Your task to perform on an android device: Open wifi settings Image 0: 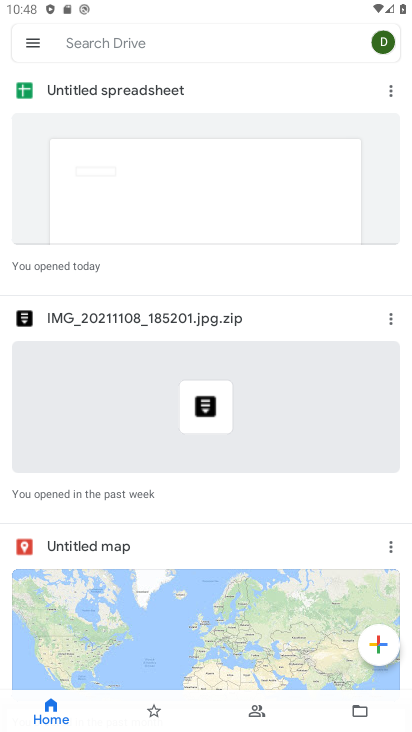
Step 0: press home button
Your task to perform on an android device: Open wifi settings Image 1: 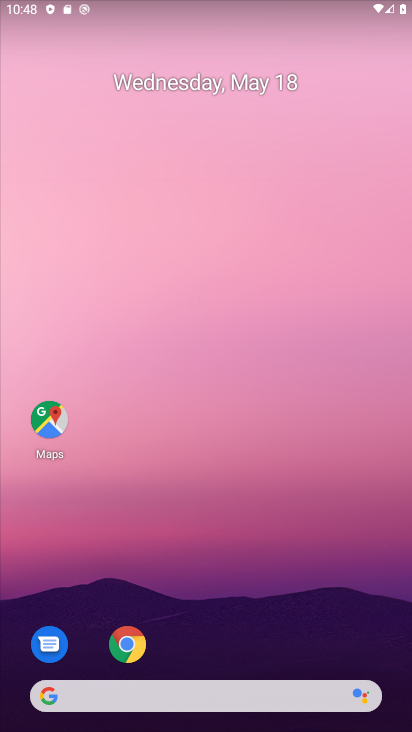
Step 1: drag from (187, 664) to (3, 139)
Your task to perform on an android device: Open wifi settings Image 2: 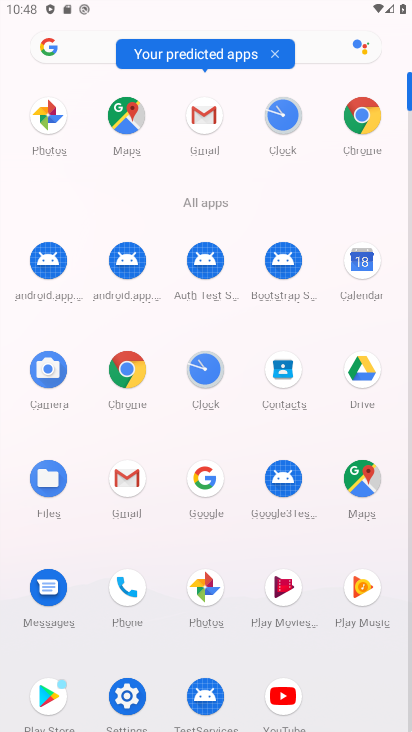
Step 2: click (132, 689)
Your task to perform on an android device: Open wifi settings Image 3: 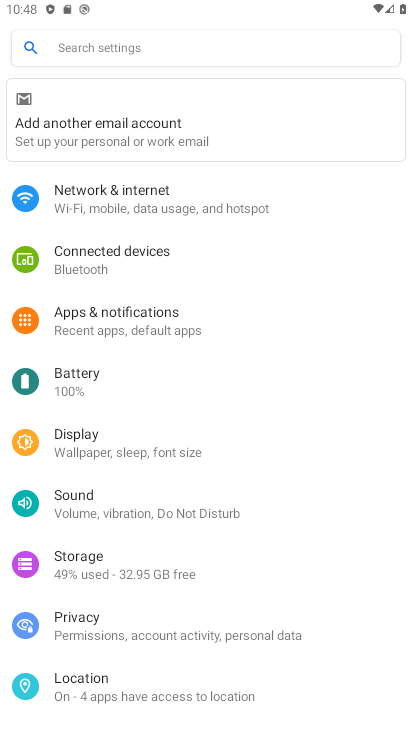
Step 3: click (178, 213)
Your task to perform on an android device: Open wifi settings Image 4: 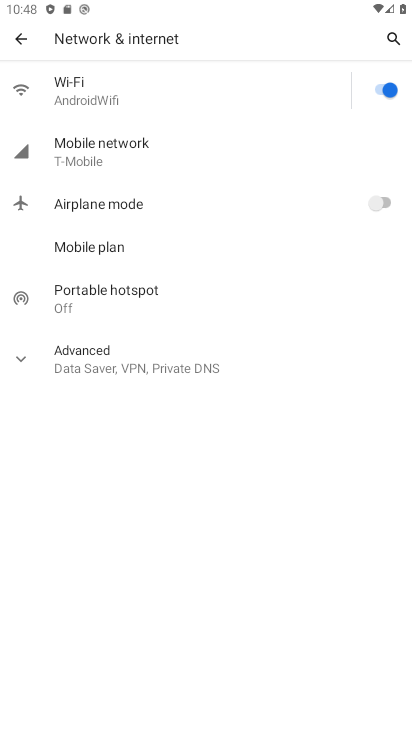
Step 4: press home button
Your task to perform on an android device: Open wifi settings Image 5: 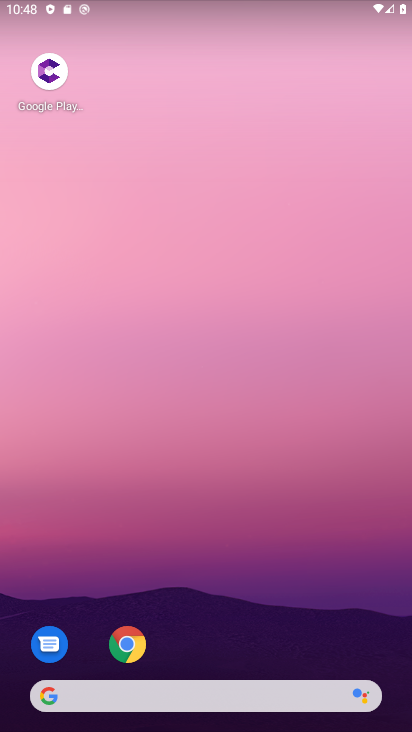
Step 5: drag from (182, 663) to (409, 207)
Your task to perform on an android device: Open wifi settings Image 6: 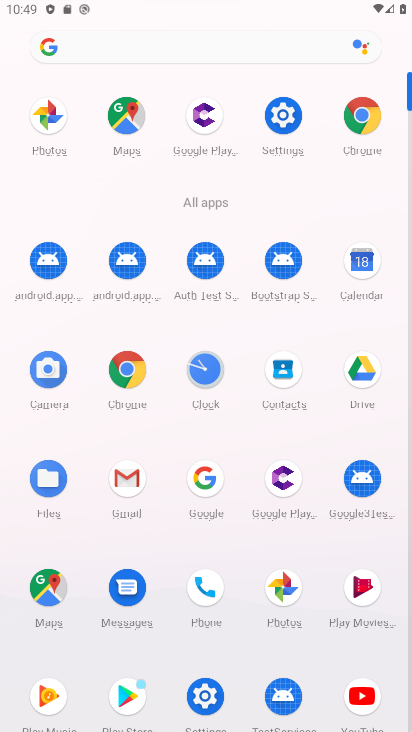
Step 6: click (295, 114)
Your task to perform on an android device: Open wifi settings Image 7: 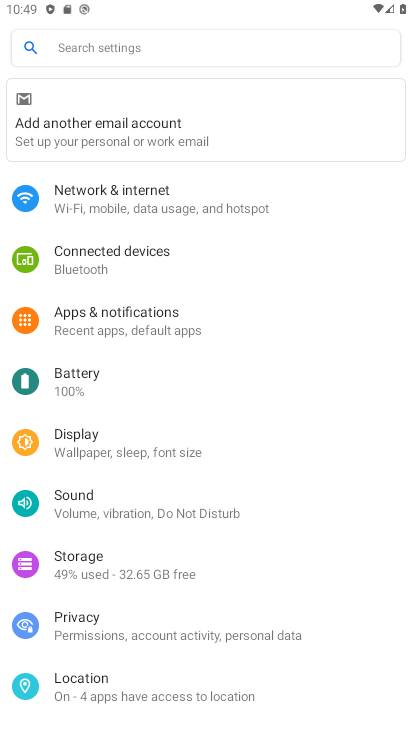
Step 7: click (99, 182)
Your task to perform on an android device: Open wifi settings Image 8: 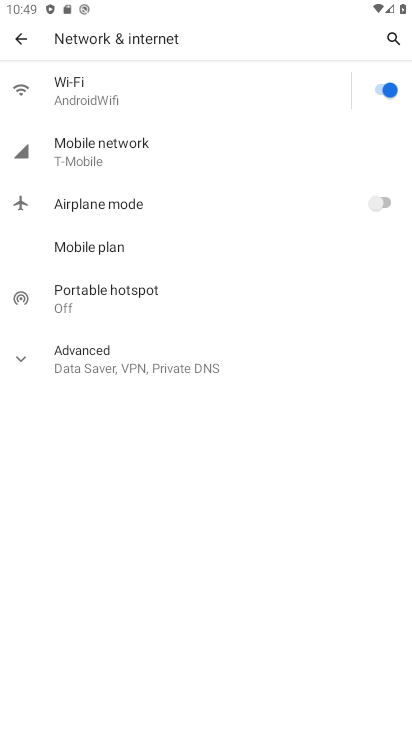
Step 8: click (104, 82)
Your task to perform on an android device: Open wifi settings Image 9: 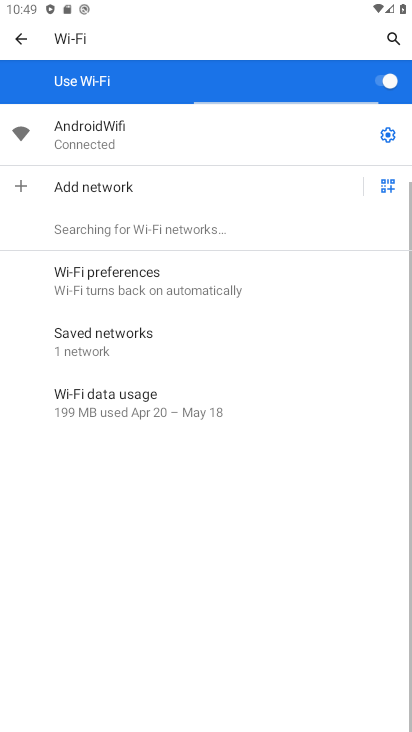
Step 9: task complete